Your task to perform on an android device: turn pop-ups off in chrome Image 0: 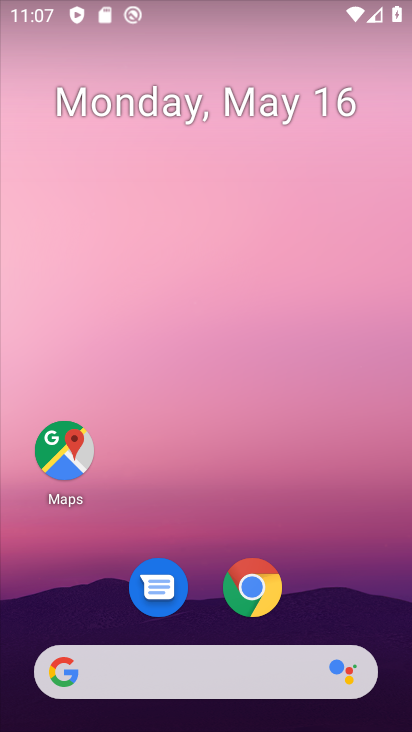
Step 0: click (249, 586)
Your task to perform on an android device: turn pop-ups off in chrome Image 1: 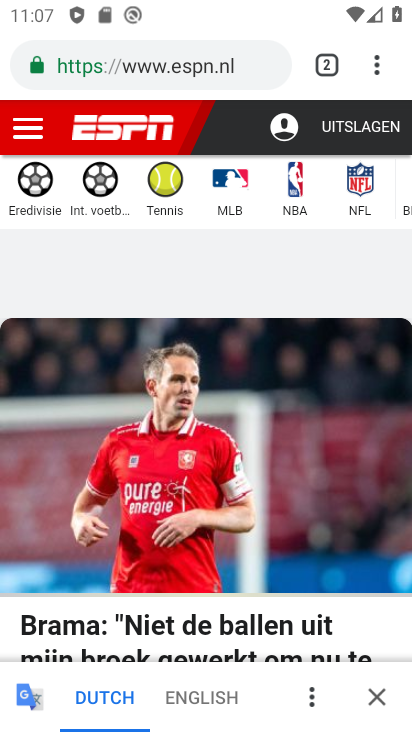
Step 1: click (361, 58)
Your task to perform on an android device: turn pop-ups off in chrome Image 2: 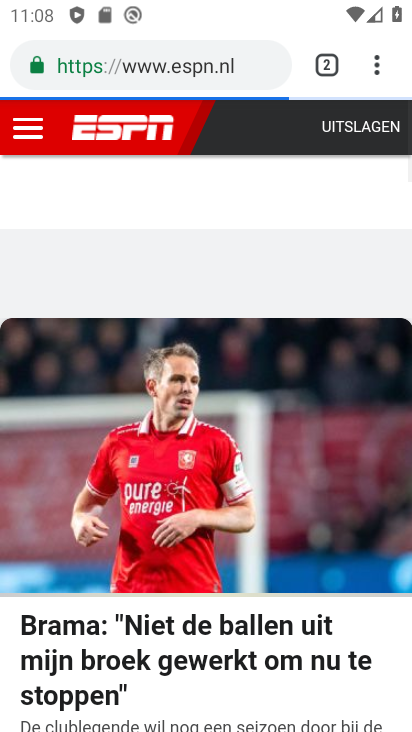
Step 2: click (370, 69)
Your task to perform on an android device: turn pop-ups off in chrome Image 3: 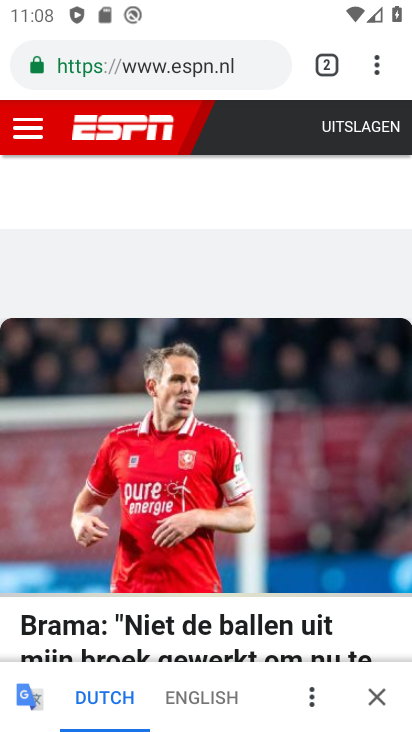
Step 3: click (370, 69)
Your task to perform on an android device: turn pop-ups off in chrome Image 4: 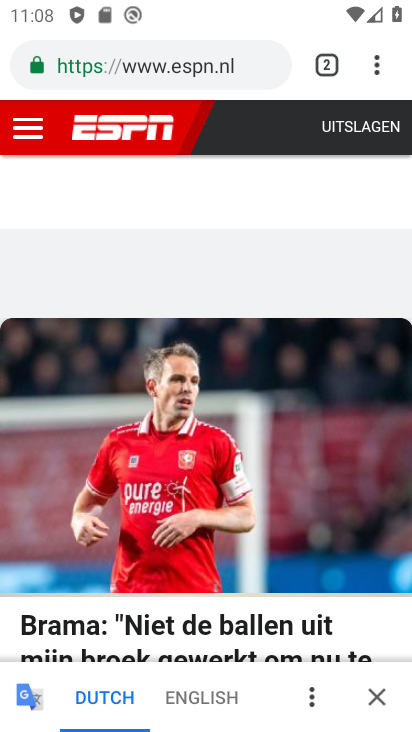
Step 4: click (372, 57)
Your task to perform on an android device: turn pop-ups off in chrome Image 5: 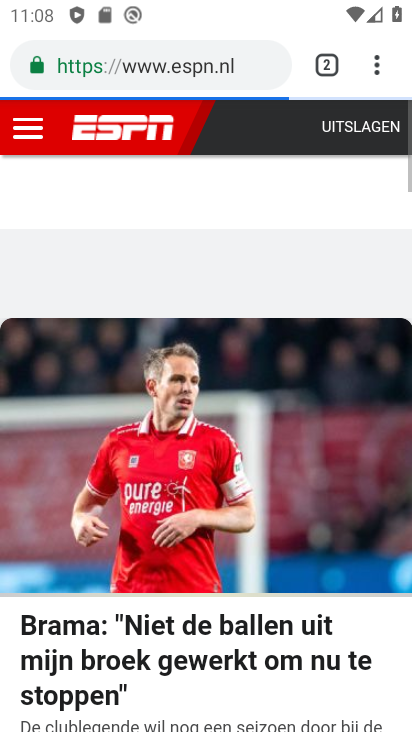
Step 5: click (372, 57)
Your task to perform on an android device: turn pop-ups off in chrome Image 6: 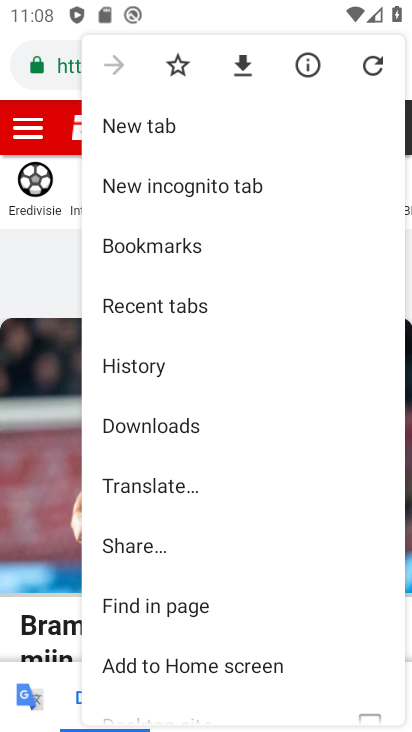
Step 6: drag from (213, 574) to (267, 219)
Your task to perform on an android device: turn pop-ups off in chrome Image 7: 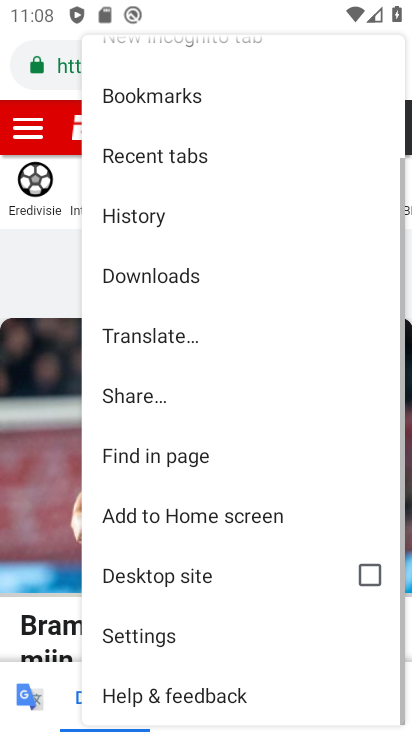
Step 7: click (188, 637)
Your task to perform on an android device: turn pop-ups off in chrome Image 8: 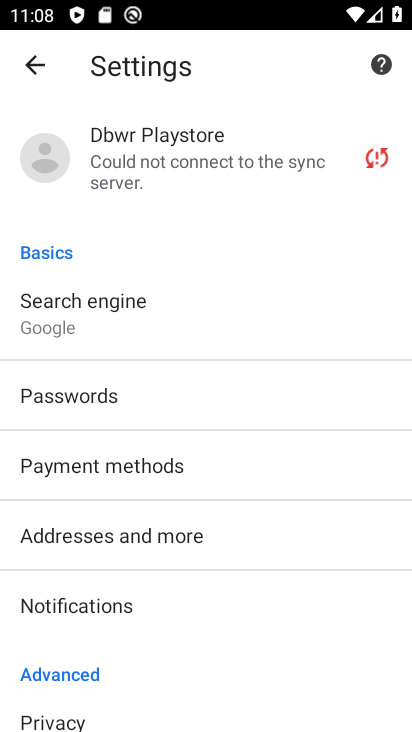
Step 8: drag from (270, 609) to (297, 256)
Your task to perform on an android device: turn pop-ups off in chrome Image 9: 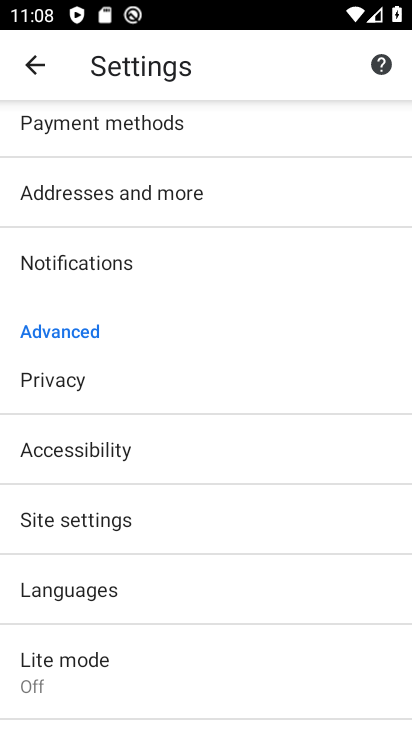
Step 9: click (125, 515)
Your task to perform on an android device: turn pop-ups off in chrome Image 10: 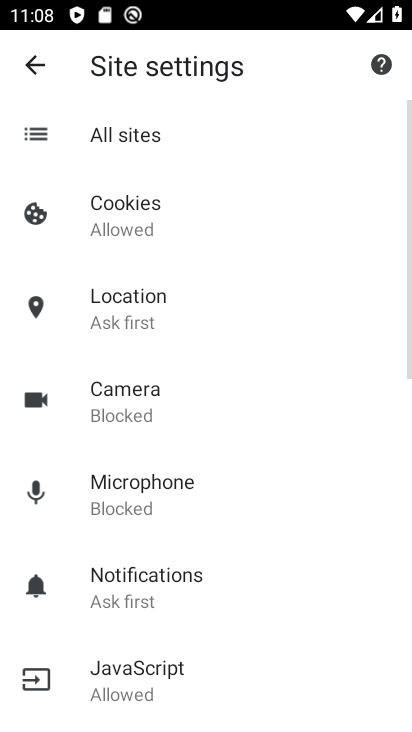
Step 10: drag from (209, 578) to (299, 262)
Your task to perform on an android device: turn pop-ups off in chrome Image 11: 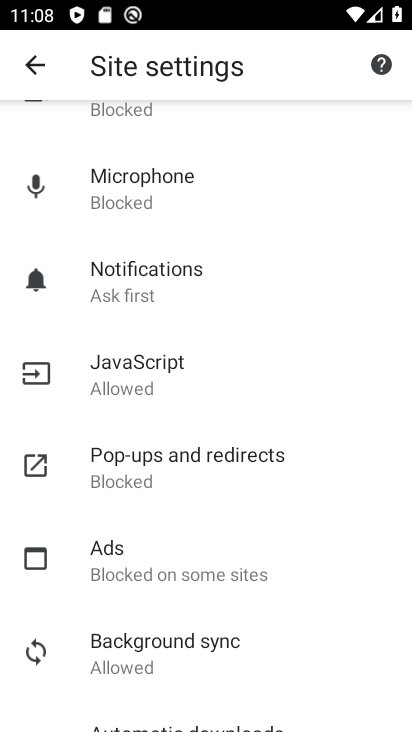
Step 11: click (183, 464)
Your task to perform on an android device: turn pop-ups off in chrome Image 12: 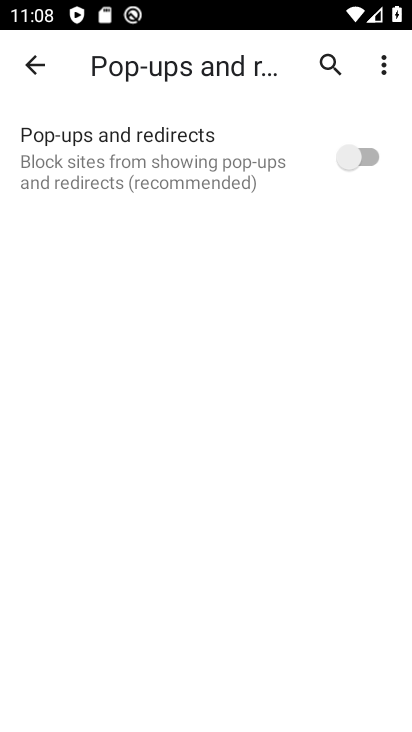
Step 12: task complete